Your task to perform on an android device: turn off translation in the chrome app Image 0: 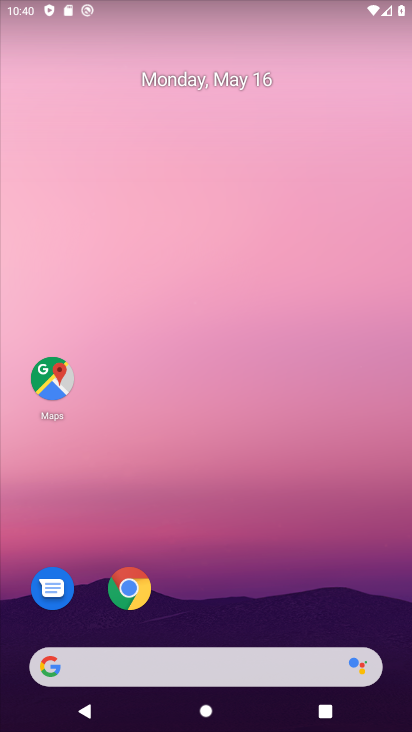
Step 0: click (140, 595)
Your task to perform on an android device: turn off translation in the chrome app Image 1: 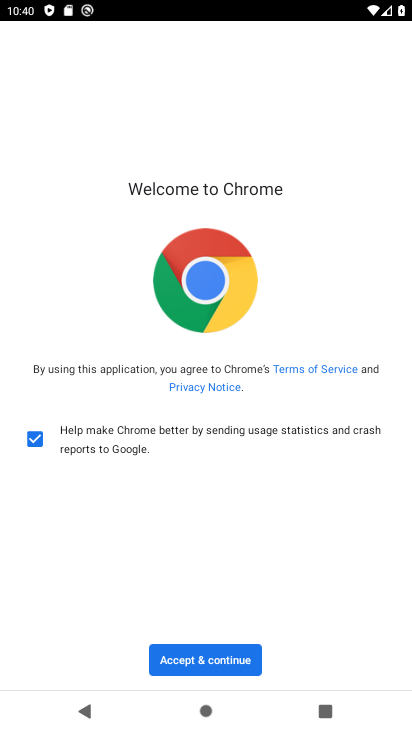
Step 1: click (235, 662)
Your task to perform on an android device: turn off translation in the chrome app Image 2: 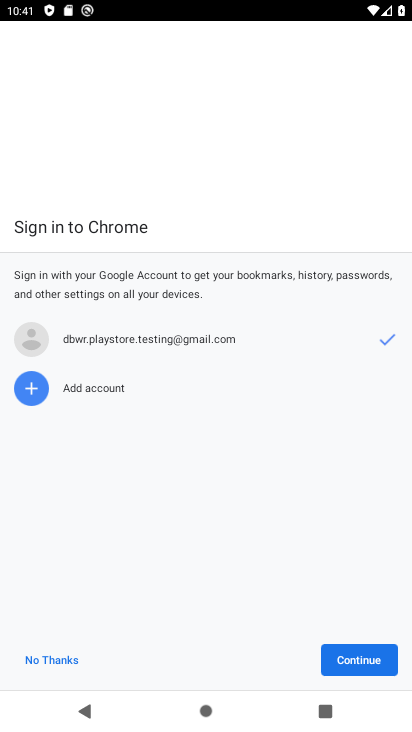
Step 2: click (372, 667)
Your task to perform on an android device: turn off translation in the chrome app Image 3: 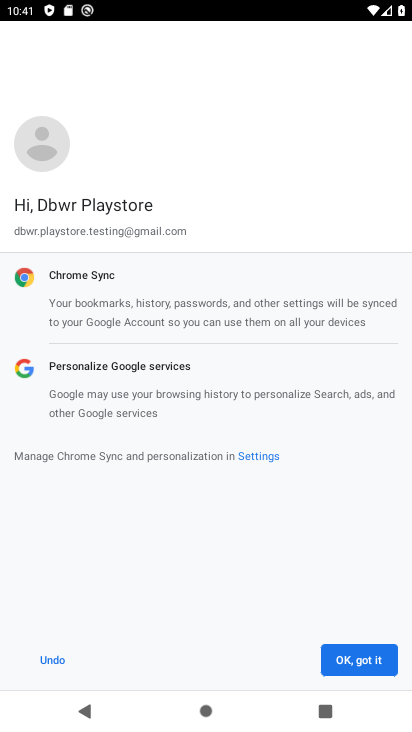
Step 3: click (361, 652)
Your task to perform on an android device: turn off translation in the chrome app Image 4: 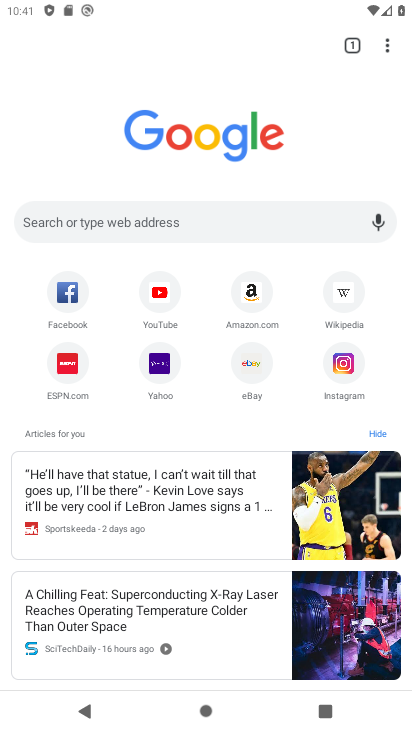
Step 4: drag from (387, 46) to (245, 368)
Your task to perform on an android device: turn off translation in the chrome app Image 5: 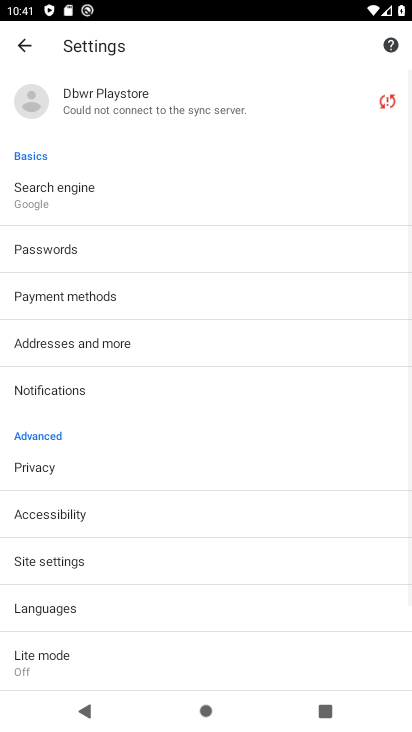
Step 5: drag from (211, 621) to (256, 371)
Your task to perform on an android device: turn off translation in the chrome app Image 6: 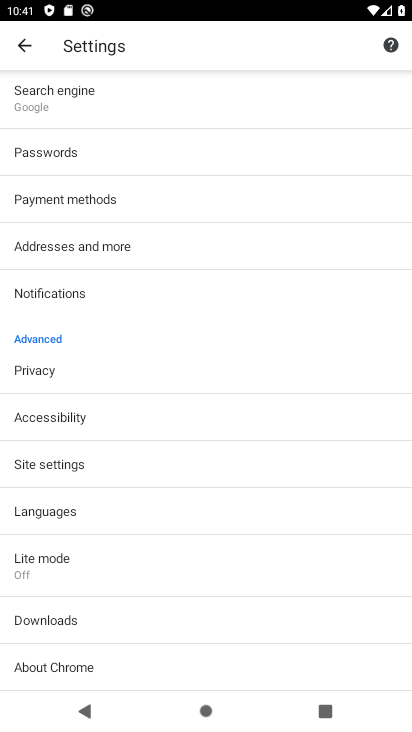
Step 6: click (97, 513)
Your task to perform on an android device: turn off translation in the chrome app Image 7: 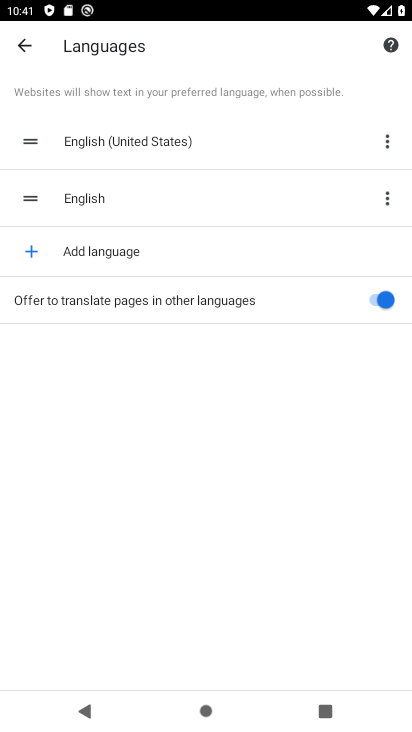
Step 7: click (376, 303)
Your task to perform on an android device: turn off translation in the chrome app Image 8: 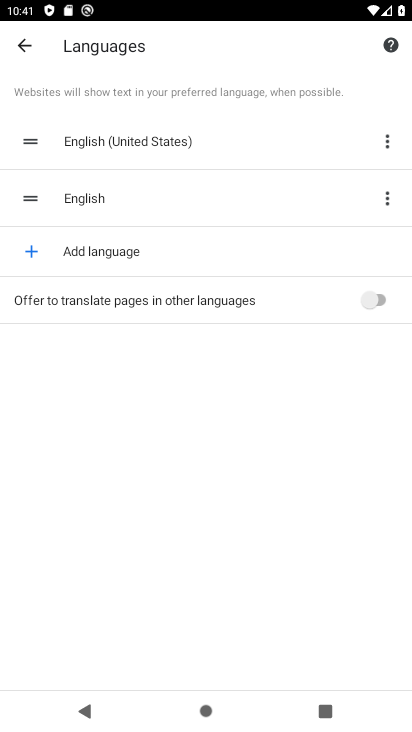
Step 8: task complete